Your task to perform on an android device: turn on improve location accuracy Image 0: 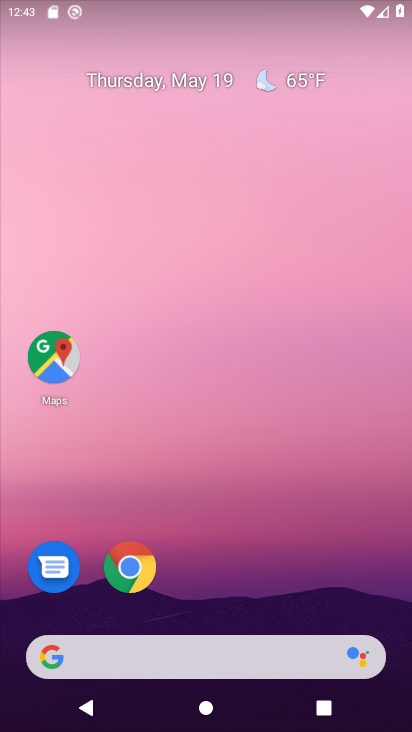
Step 0: drag from (257, 575) to (326, 0)
Your task to perform on an android device: turn on improve location accuracy Image 1: 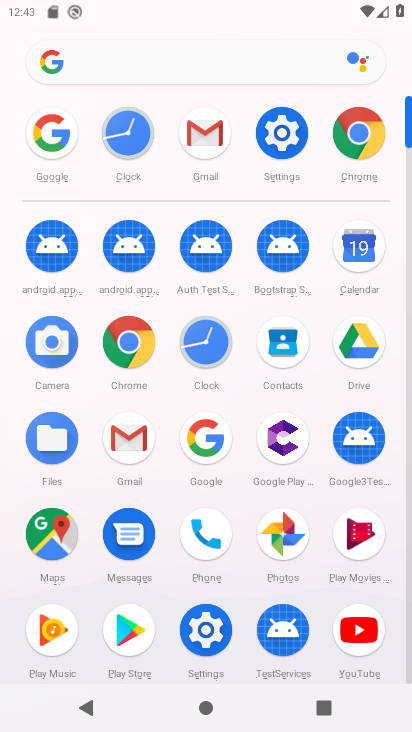
Step 1: click (286, 160)
Your task to perform on an android device: turn on improve location accuracy Image 2: 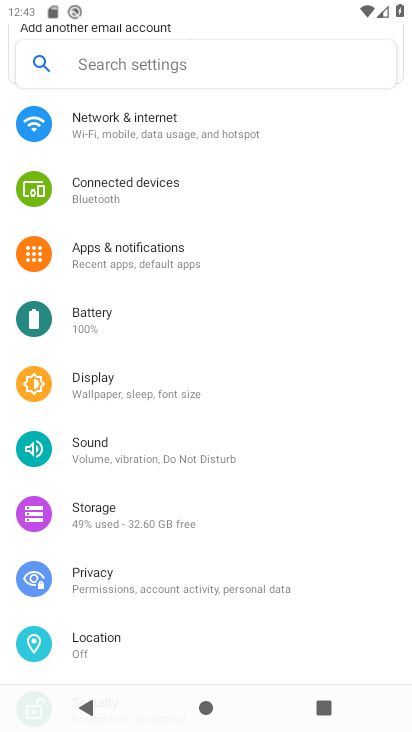
Step 2: click (121, 631)
Your task to perform on an android device: turn on improve location accuracy Image 3: 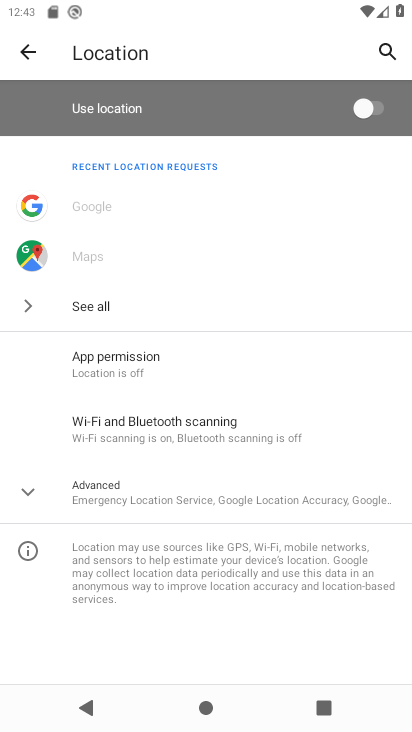
Step 3: click (201, 496)
Your task to perform on an android device: turn on improve location accuracy Image 4: 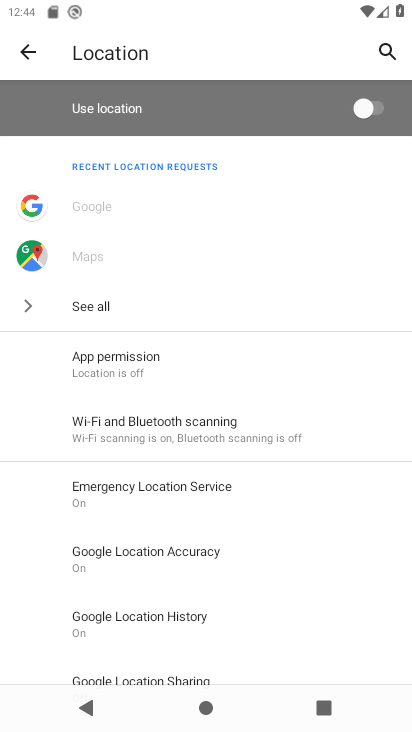
Step 4: click (187, 556)
Your task to perform on an android device: turn on improve location accuracy Image 5: 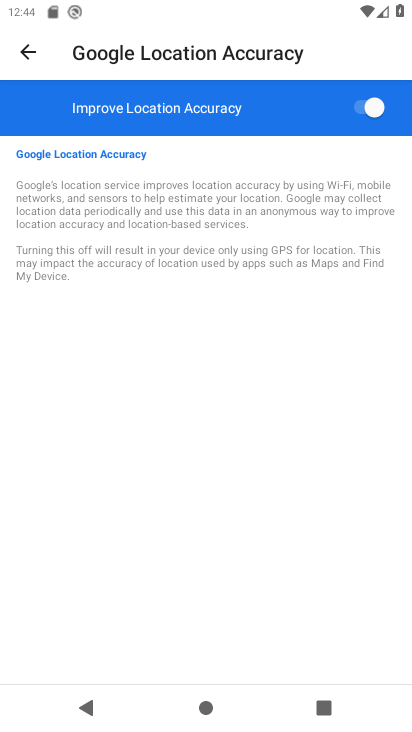
Step 5: task complete